Your task to perform on an android device: turn notification dots off Image 0: 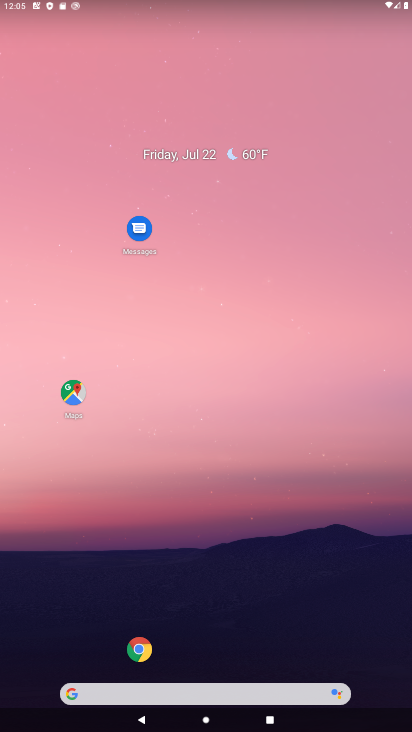
Step 0: drag from (43, 703) to (263, 92)
Your task to perform on an android device: turn notification dots off Image 1: 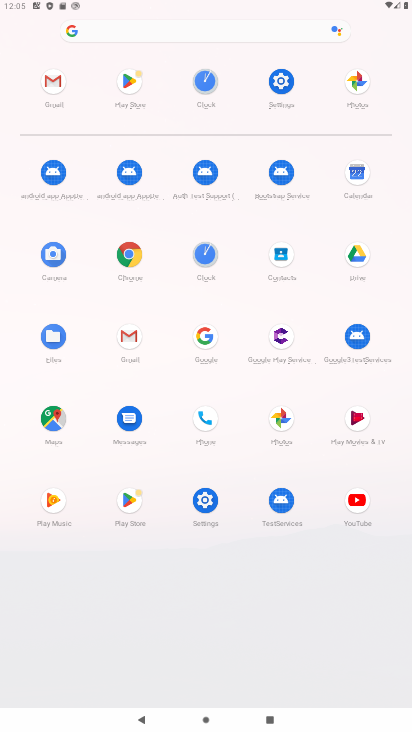
Step 1: click (198, 513)
Your task to perform on an android device: turn notification dots off Image 2: 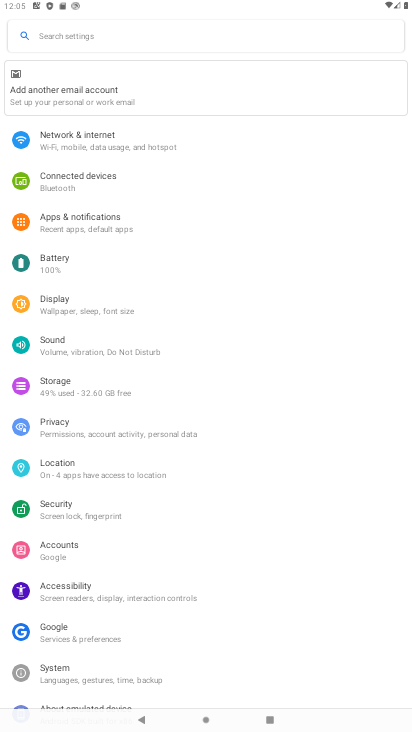
Step 2: click (123, 228)
Your task to perform on an android device: turn notification dots off Image 3: 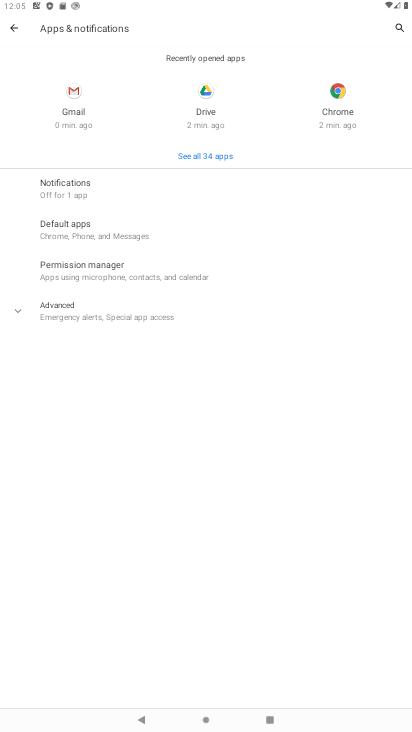
Step 3: click (83, 307)
Your task to perform on an android device: turn notification dots off Image 4: 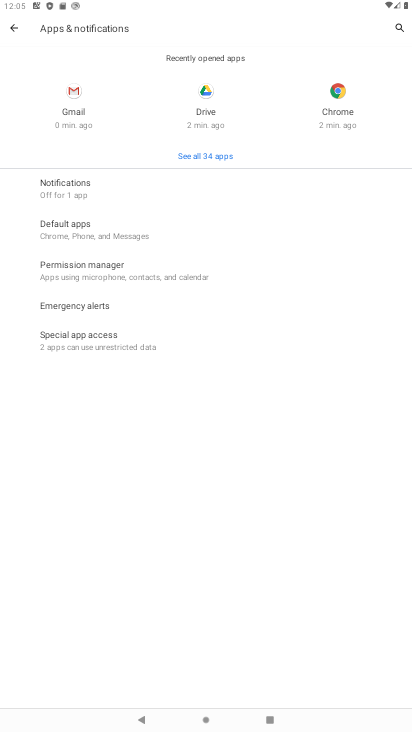
Step 4: click (48, 194)
Your task to perform on an android device: turn notification dots off Image 5: 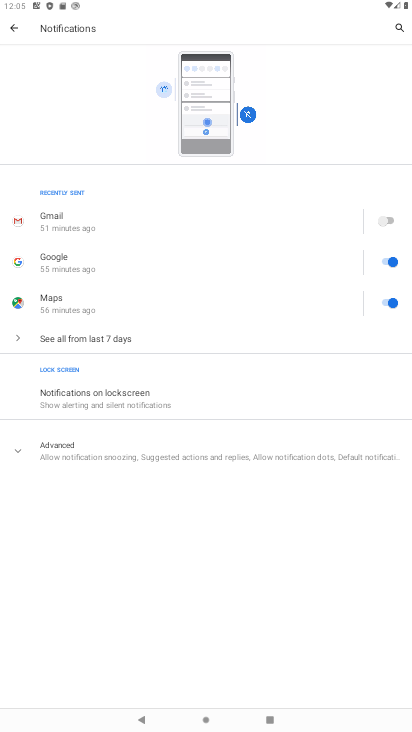
Step 5: click (141, 456)
Your task to perform on an android device: turn notification dots off Image 6: 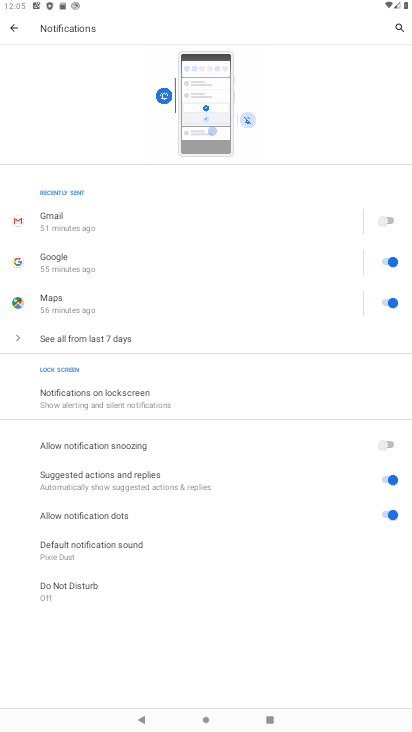
Step 6: click (392, 516)
Your task to perform on an android device: turn notification dots off Image 7: 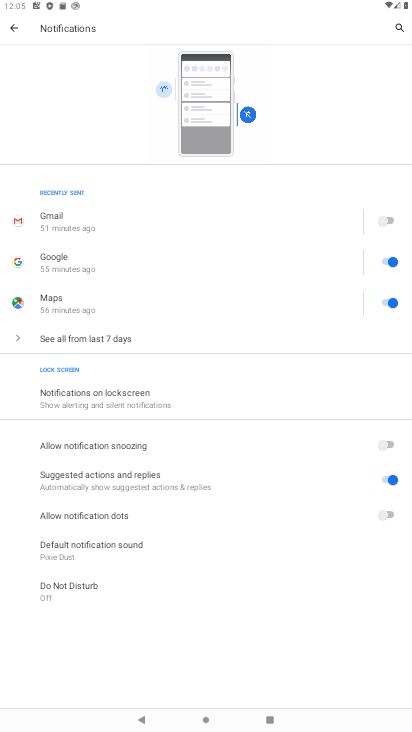
Step 7: task complete